Your task to perform on an android device: change the clock style Image 0: 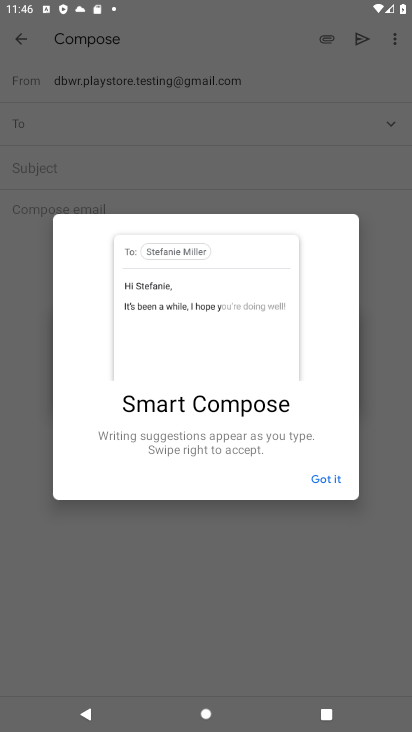
Step 0: task complete